Your task to perform on an android device: turn notification dots on Image 0: 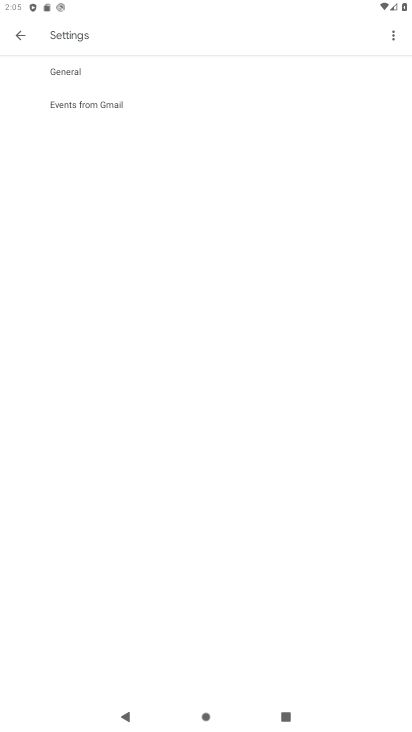
Step 0: press home button
Your task to perform on an android device: turn notification dots on Image 1: 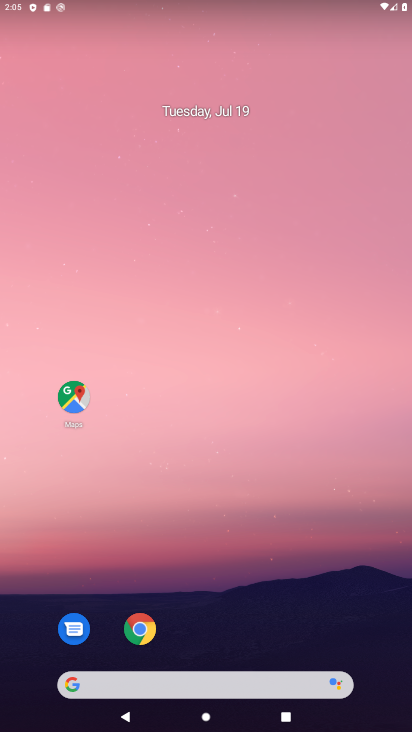
Step 1: drag from (233, 611) to (234, 85)
Your task to perform on an android device: turn notification dots on Image 2: 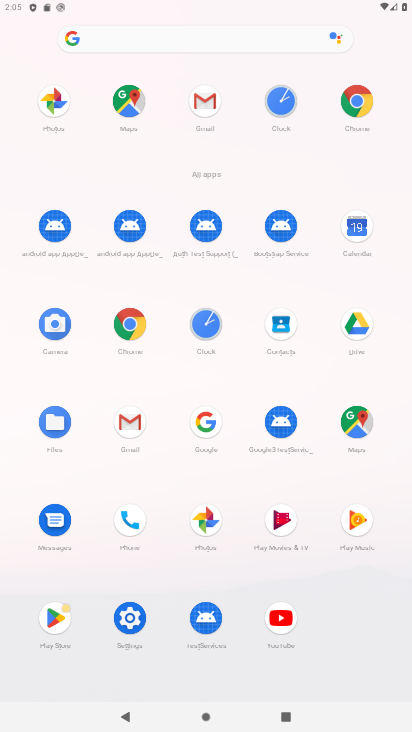
Step 2: click (131, 623)
Your task to perform on an android device: turn notification dots on Image 3: 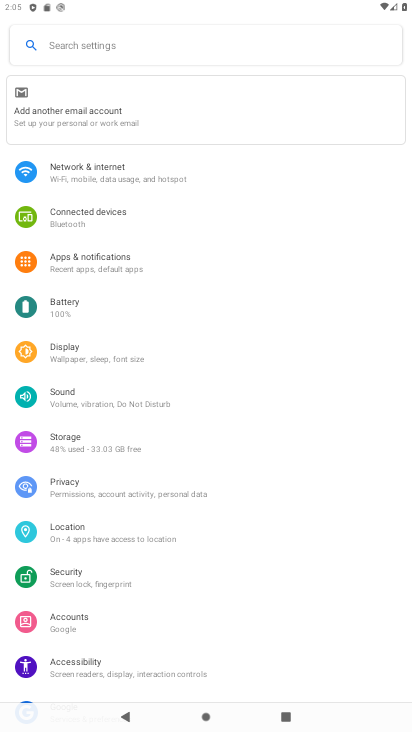
Step 3: click (163, 272)
Your task to perform on an android device: turn notification dots on Image 4: 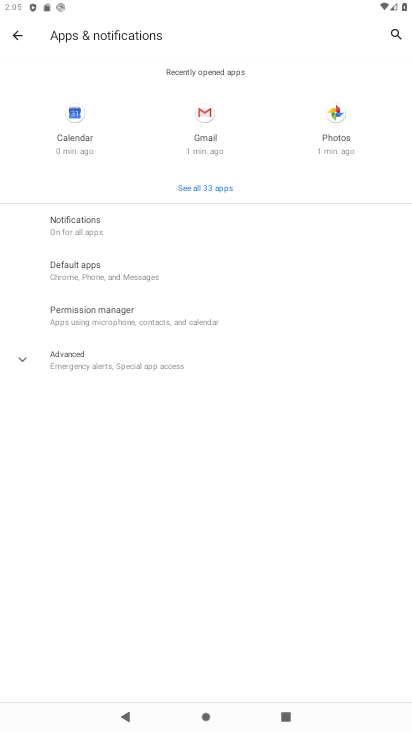
Step 4: click (100, 219)
Your task to perform on an android device: turn notification dots on Image 5: 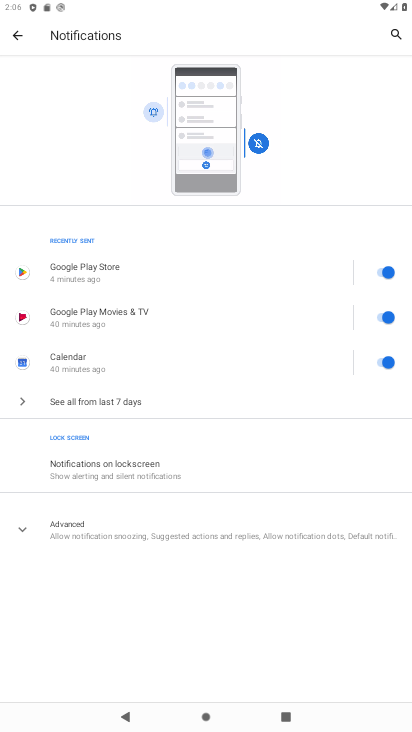
Step 5: click (193, 522)
Your task to perform on an android device: turn notification dots on Image 6: 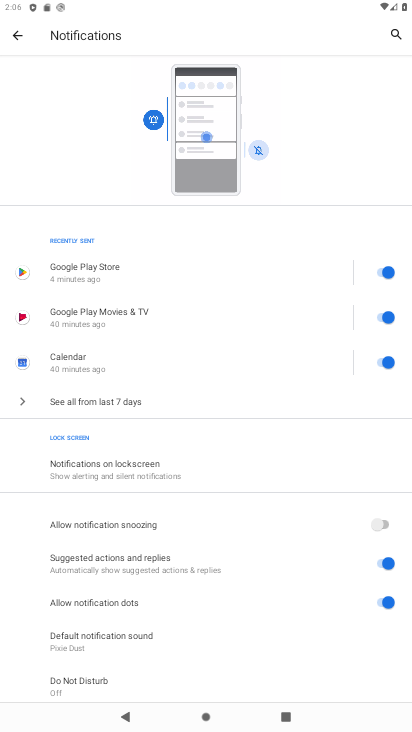
Step 6: task complete